Your task to perform on an android device: Go to CNN.com Image 0: 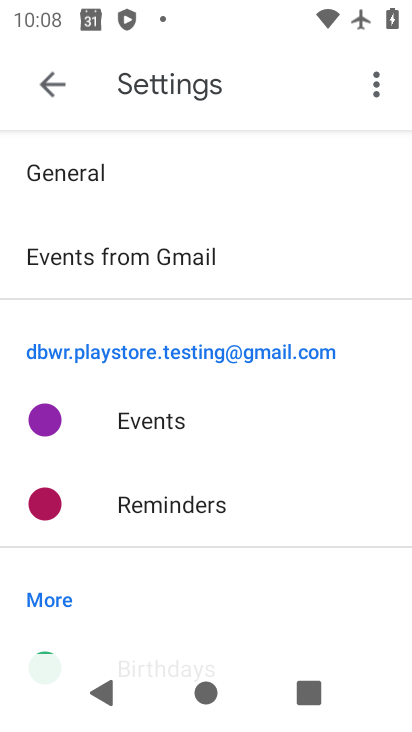
Step 0: press home button
Your task to perform on an android device: Go to CNN.com Image 1: 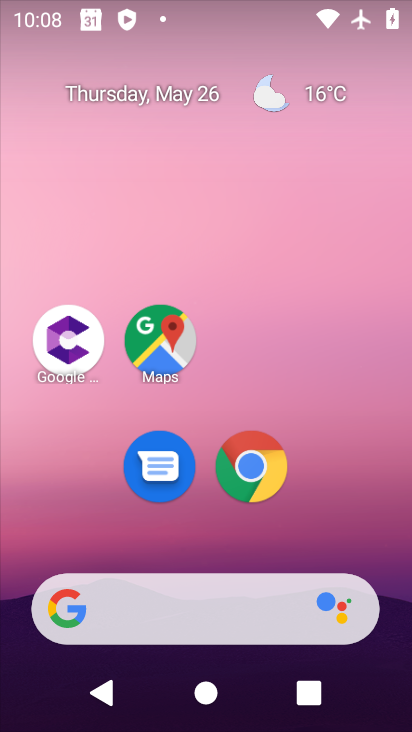
Step 1: click (256, 469)
Your task to perform on an android device: Go to CNN.com Image 2: 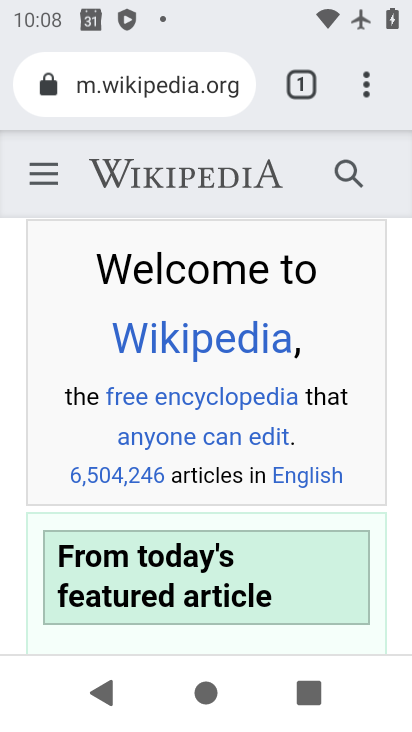
Step 2: click (368, 82)
Your task to perform on an android device: Go to CNN.com Image 3: 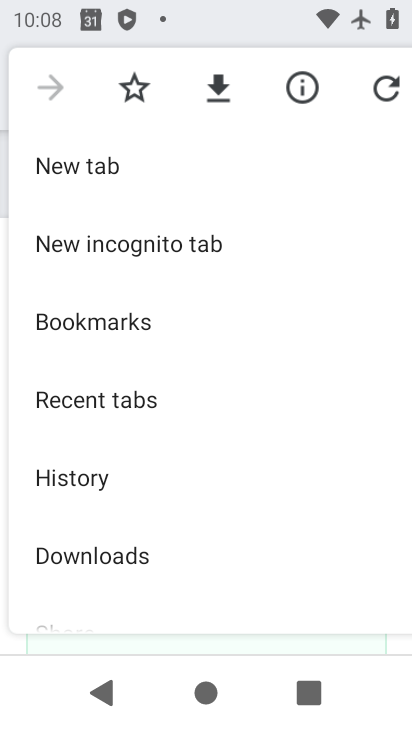
Step 3: click (91, 164)
Your task to perform on an android device: Go to CNN.com Image 4: 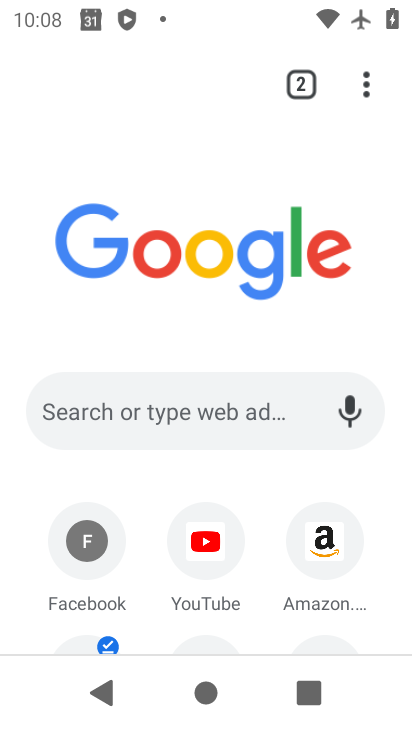
Step 4: click (143, 407)
Your task to perform on an android device: Go to CNN.com Image 5: 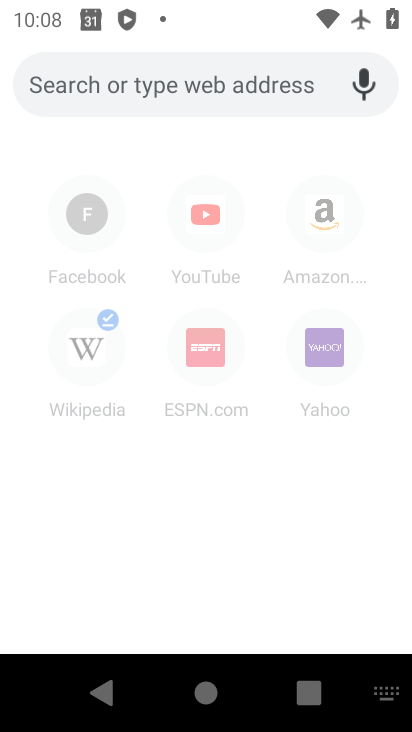
Step 5: type "cnn.com"
Your task to perform on an android device: Go to CNN.com Image 6: 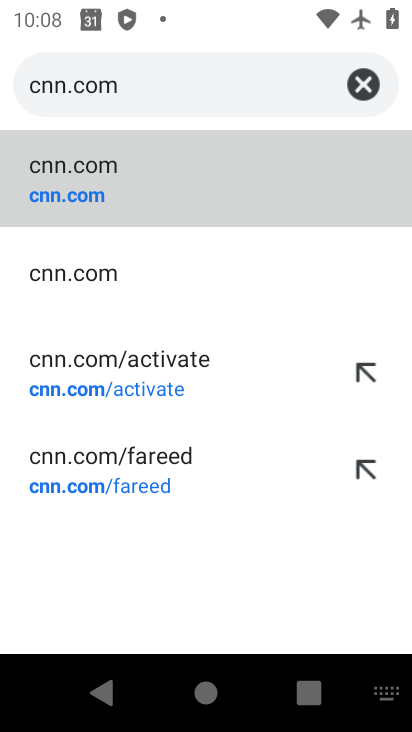
Step 6: click (54, 183)
Your task to perform on an android device: Go to CNN.com Image 7: 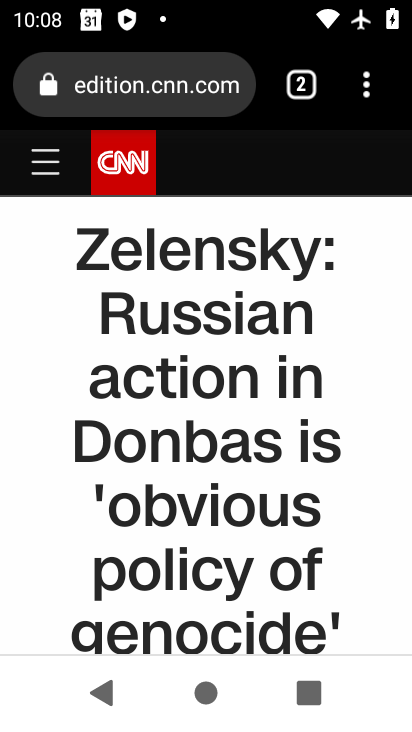
Step 7: task complete